Your task to perform on an android device: Search for sushi restaurants on Maps Image 0: 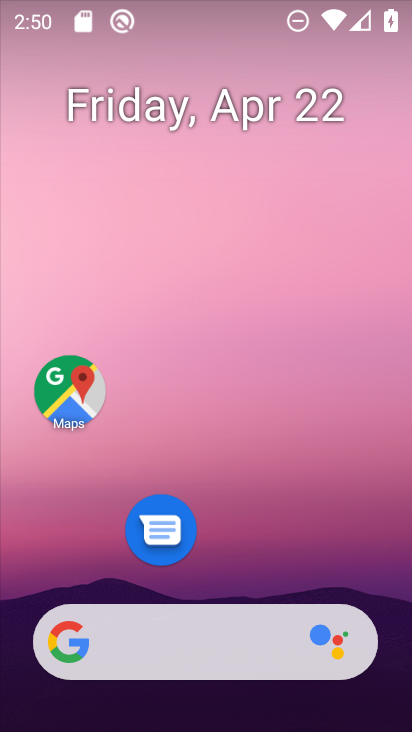
Step 0: click (71, 400)
Your task to perform on an android device: Search for sushi restaurants on Maps Image 1: 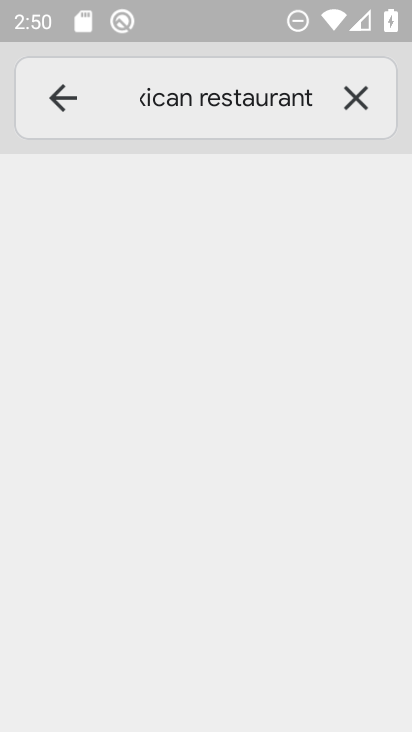
Step 1: click (350, 102)
Your task to perform on an android device: Search for sushi restaurants on Maps Image 2: 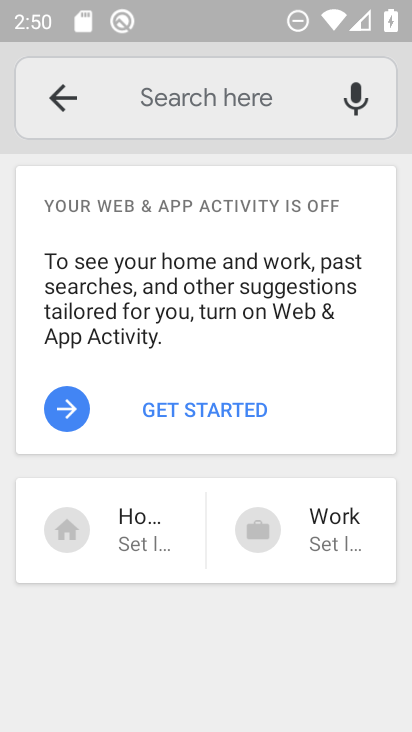
Step 2: click (179, 103)
Your task to perform on an android device: Search for sushi restaurants on Maps Image 3: 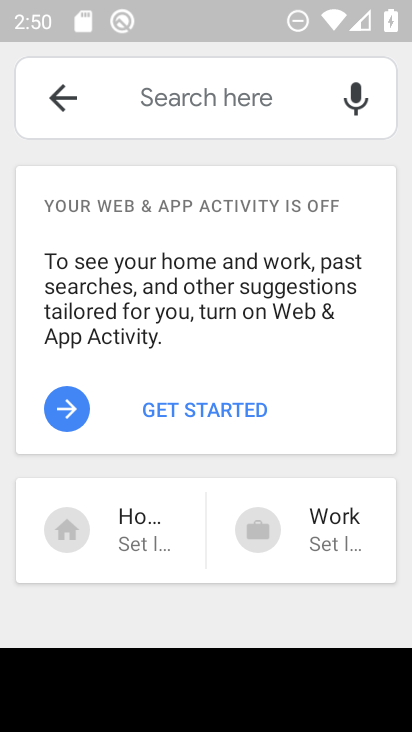
Step 3: type "sushi restaurant"
Your task to perform on an android device: Search for sushi restaurants on Maps Image 4: 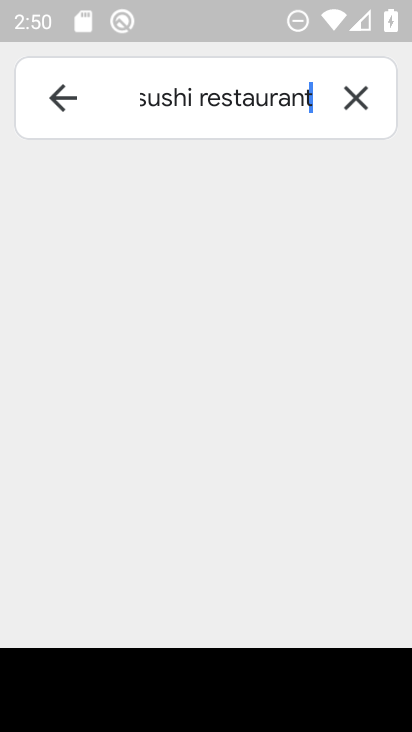
Step 4: type ""
Your task to perform on an android device: Search for sushi restaurants on Maps Image 5: 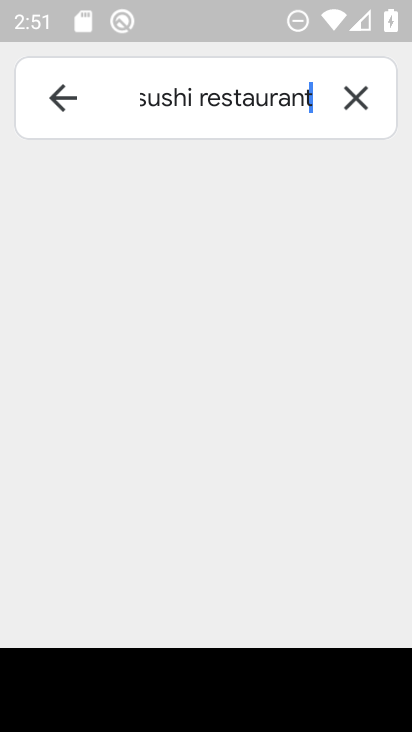
Step 5: task complete